Your task to perform on an android device: all mails in gmail Image 0: 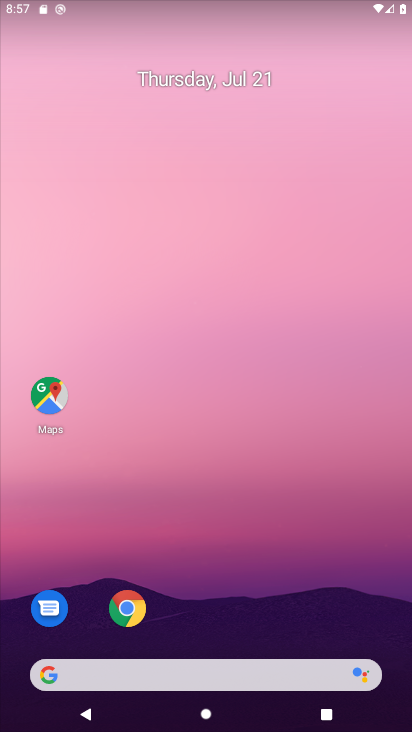
Step 0: drag from (169, 551) to (210, 195)
Your task to perform on an android device: all mails in gmail Image 1: 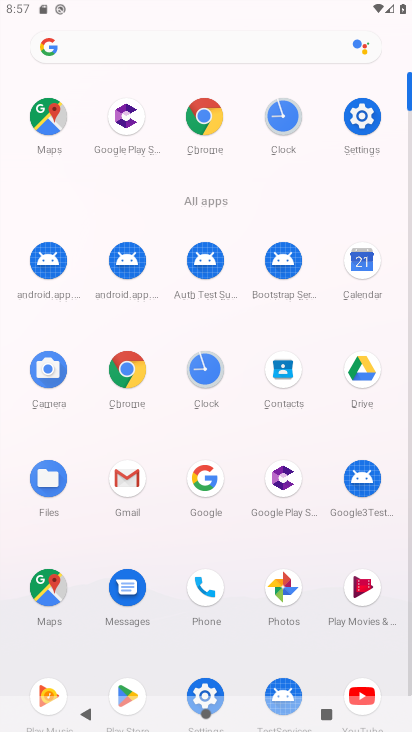
Step 1: click (120, 496)
Your task to perform on an android device: all mails in gmail Image 2: 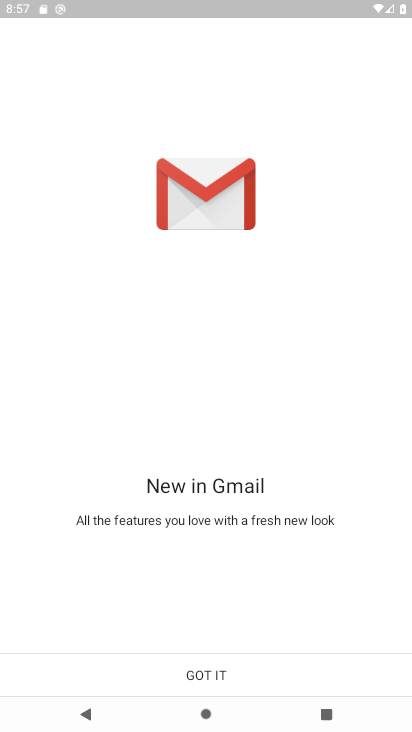
Step 2: click (200, 667)
Your task to perform on an android device: all mails in gmail Image 3: 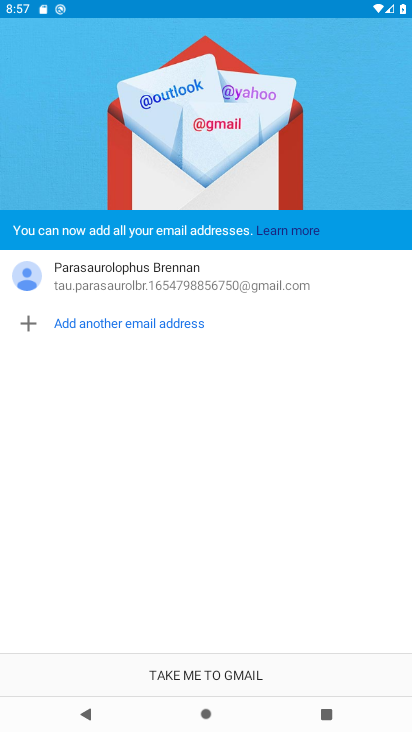
Step 3: click (200, 667)
Your task to perform on an android device: all mails in gmail Image 4: 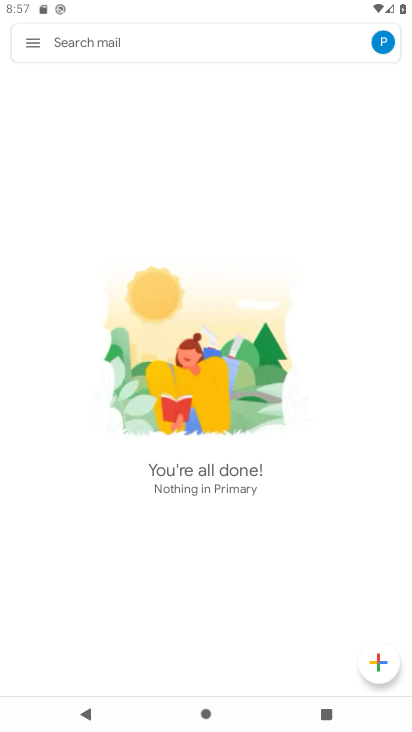
Step 4: click (33, 46)
Your task to perform on an android device: all mails in gmail Image 5: 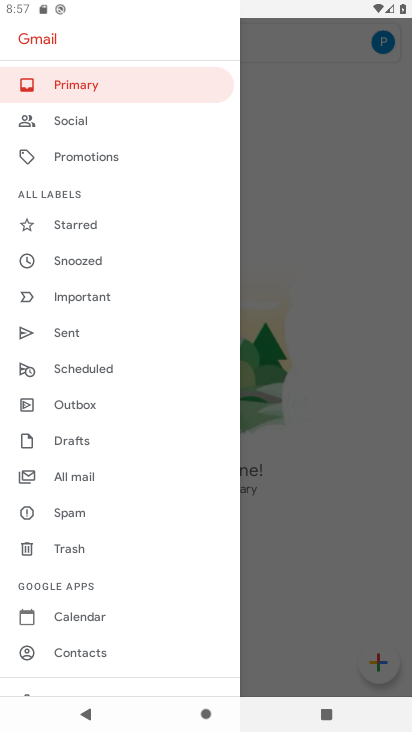
Step 5: click (84, 475)
Your task to perform on an android device: all mails in gmail Image 6: 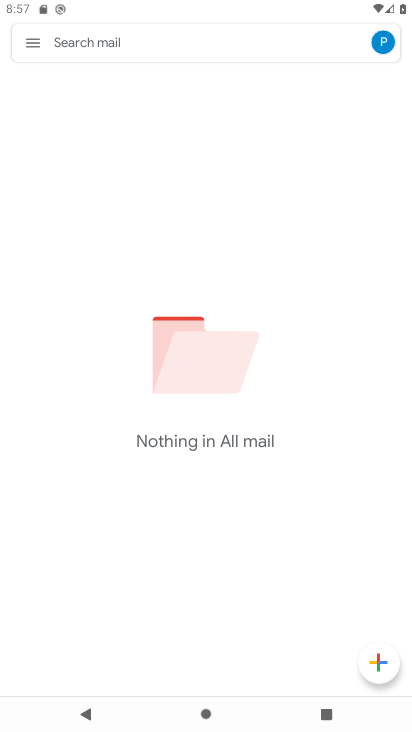
Step 6: task complete